Your task to perform on an android device: Open internet settings Image 0: 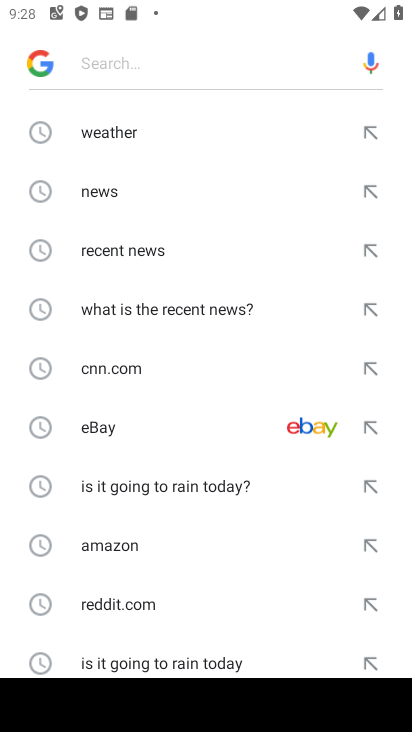
Step 0: press home button
Your task to perform on an android device: Open internet settings Image 1: 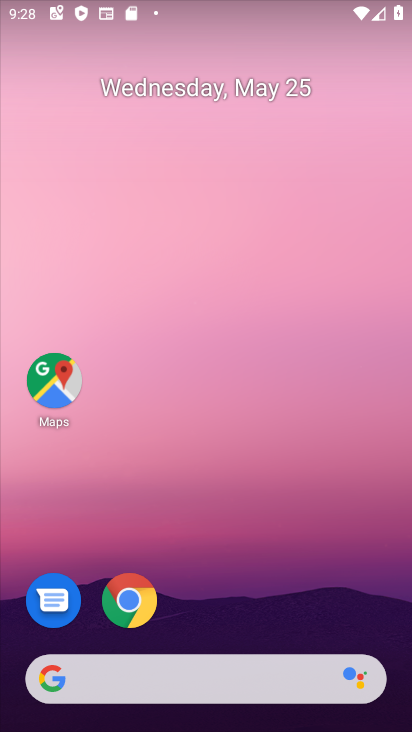
Step 1: drag from (267, 570) to (237, 26)
Your task to perform on an android device: Open internet settings Image 2: 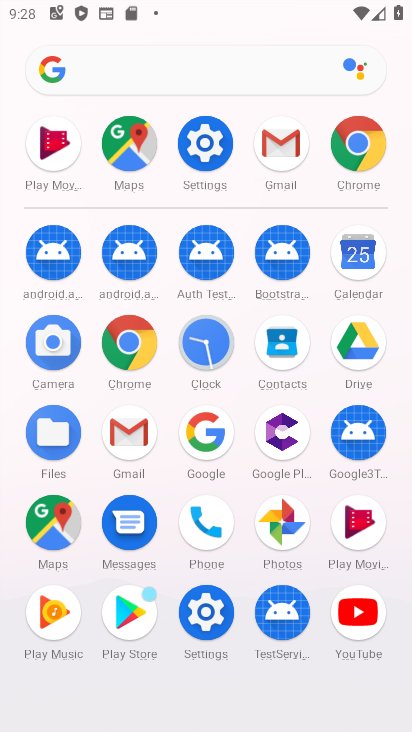
Step 2: click (203, 608)
Your task to perform on an android device: Open internet settings Image 3: 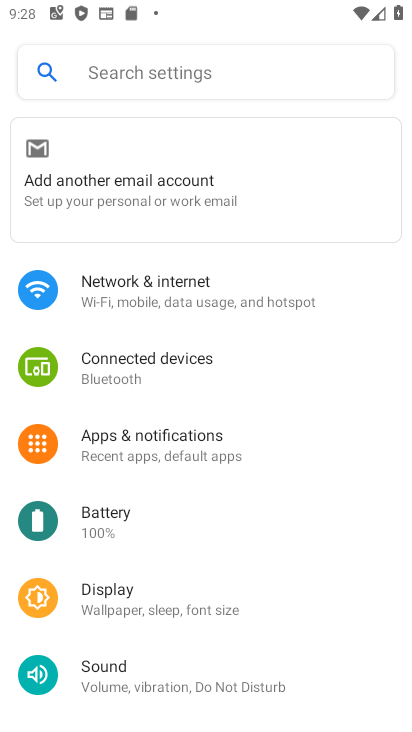
Step 3: click (253, 289)
Your task to perform on an android device: Open internet settings Image 4: 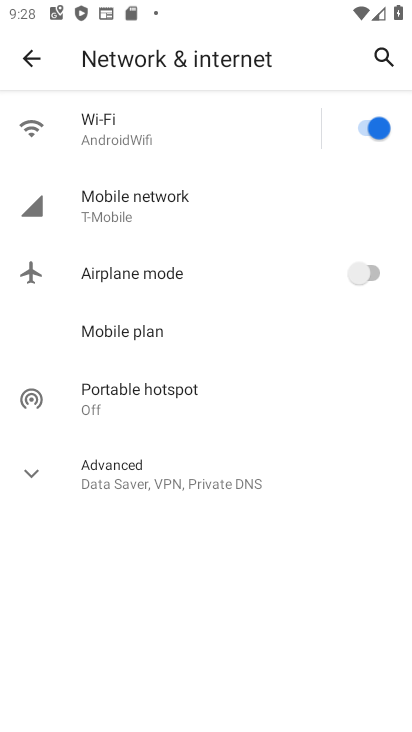
Step 4: click (36, 479)
Your task to perform on an android device: Open internet settings Image 5: 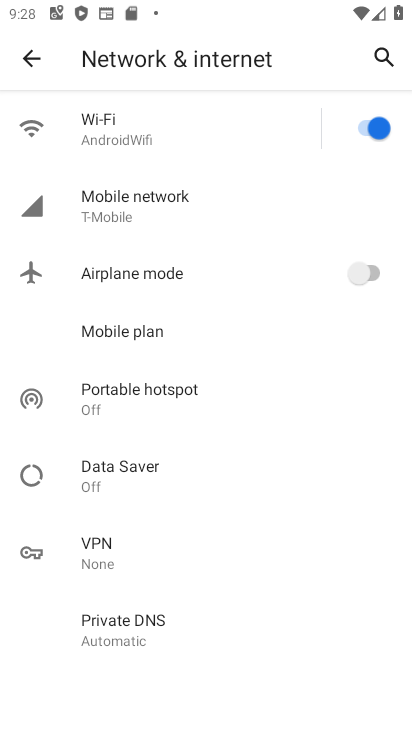
Step 5: task complete